Your task to perform on an android device: toggle show notifications on the lock screen Image 0: 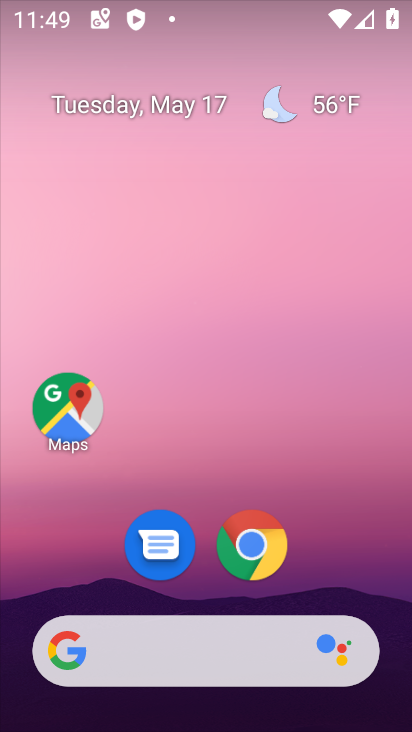
Step 0: drag from (229, 623) to (222, 122)
Your task to perform on an android device: toggle show notifications on the lock screen Image 1: 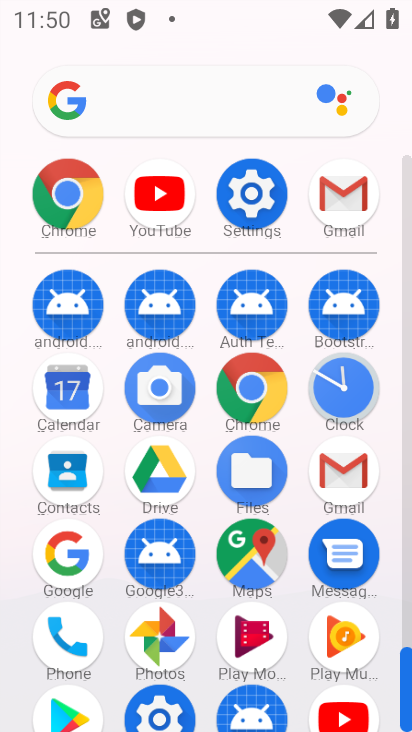
Step 1: drag from (213, 551) to (204, 275)
Your task to perform on an android device: toggle show notifications on the lock screen Image 2: 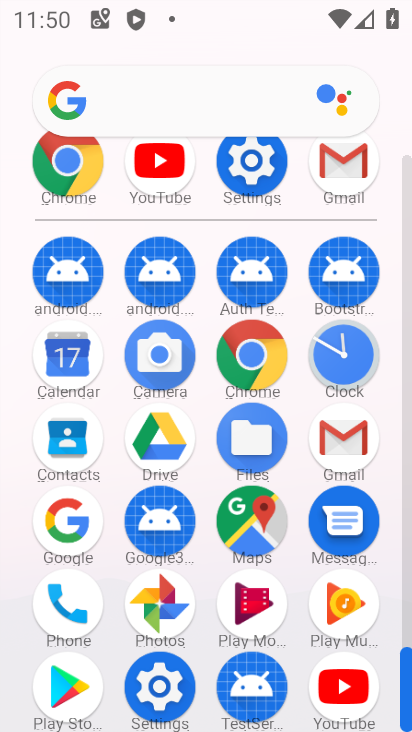
Step 2: click (264, 180)
Your task to perform on an android device: toggle show notifications on the lock screen Image 3: 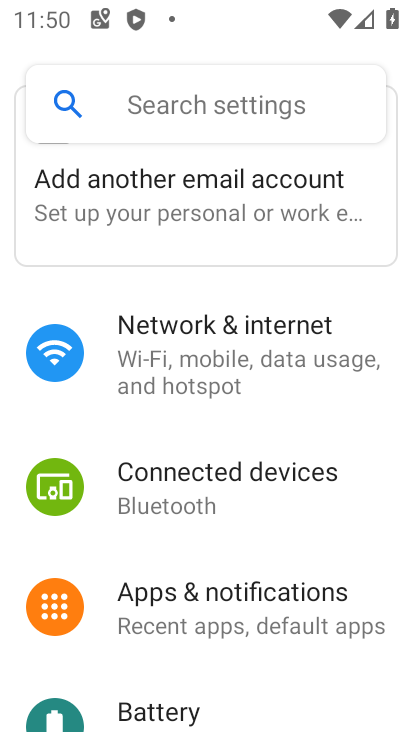
Step 3: click (219, 601)
Your task to perform on an android device: toggle show notifications on the lock screen Image 4: 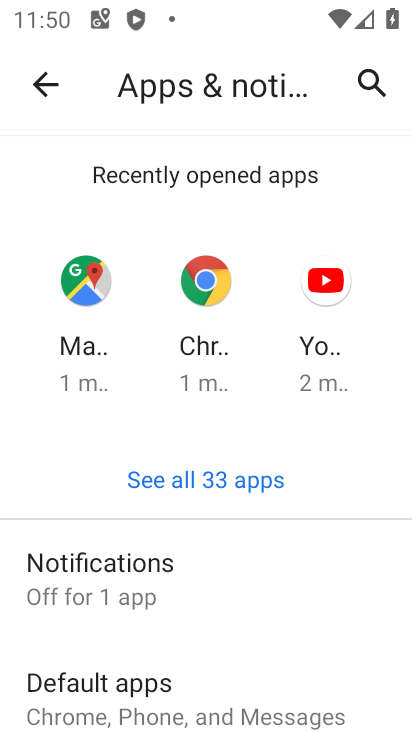
Step 4: click (193, 563)
Your task to perform on an android device: toggle show notifications on the lock screen Image 5: 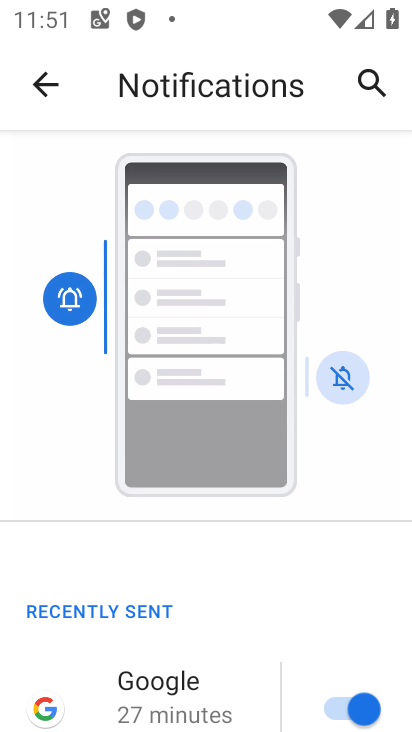
Step 5: drag from (169, 618) to (181, 322)
Your task to perform on an android device: toggle show notifications on the lock screen Image 6: 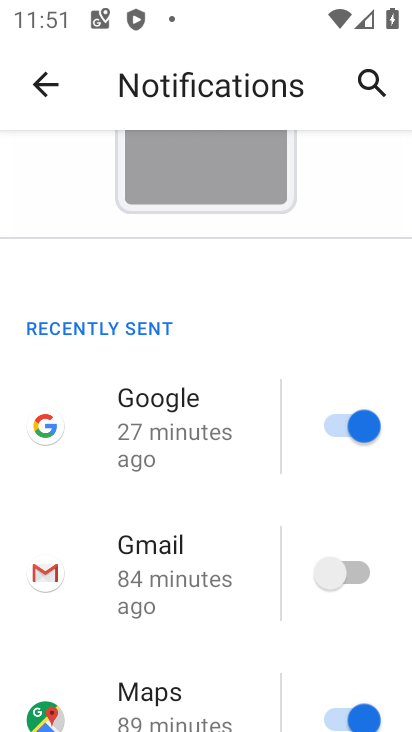
Step 6: drag from (163, 507) to (183, 118)
Your task to perform on an android device: toggle show notifications on the lock screen Image 7: 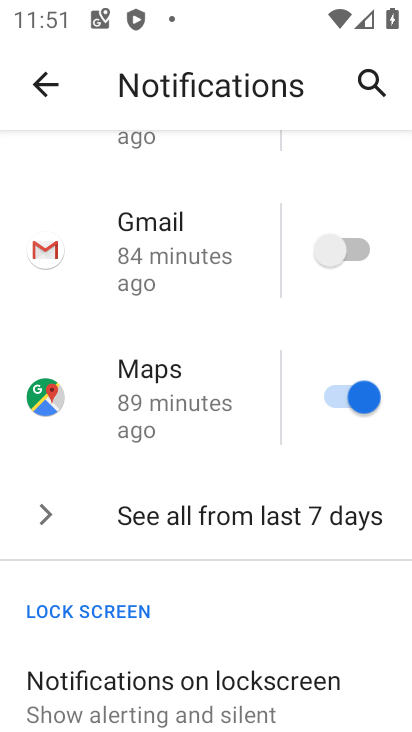
Step 7: drag from (195, 527) to (217, 258)
Your task to perform on an android device: toggle show notifications on the lock screen Image 8: 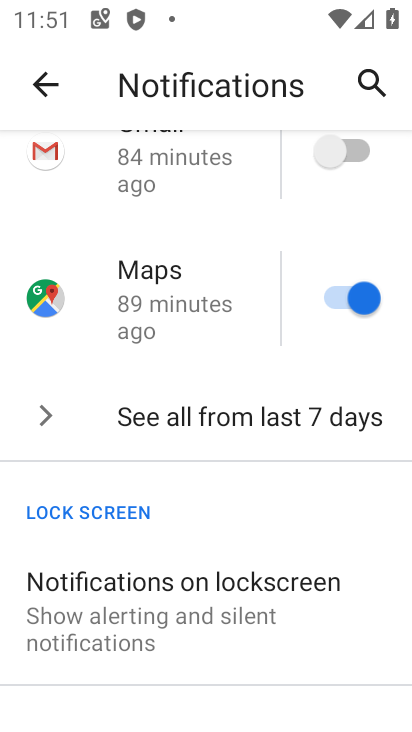
Step 8: click (188, 605)
Your task to perform on an android device: toggle show notifications on the lock screen Image 9: 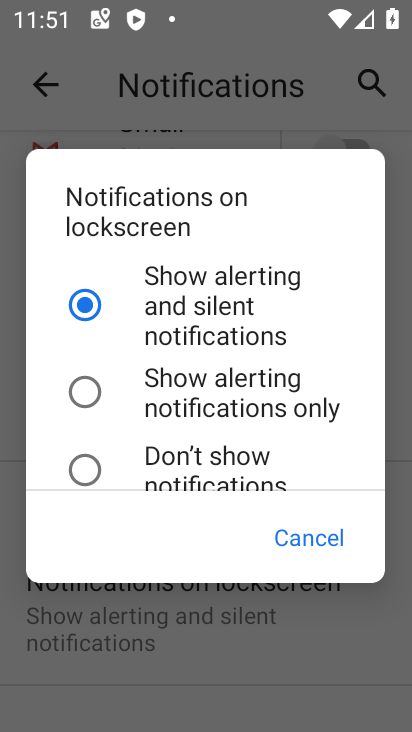
Step 9: click (152, 488)
Your task to perform on an android device: toggle show notifications on the lock screen Image 10: 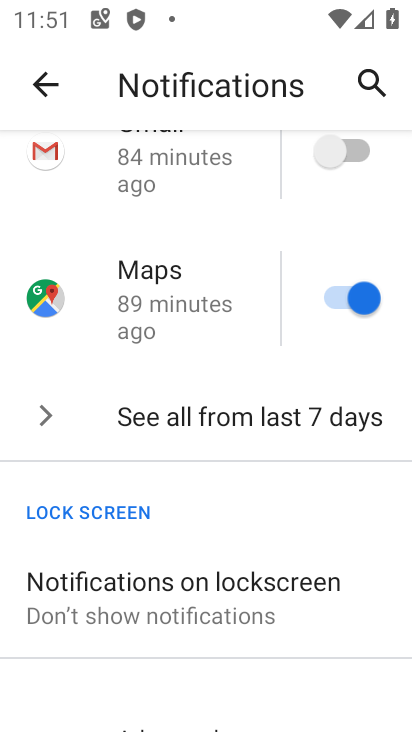
Step 10: task complete